Your task to perform on an android device: find photos in the google photos app Image 0: 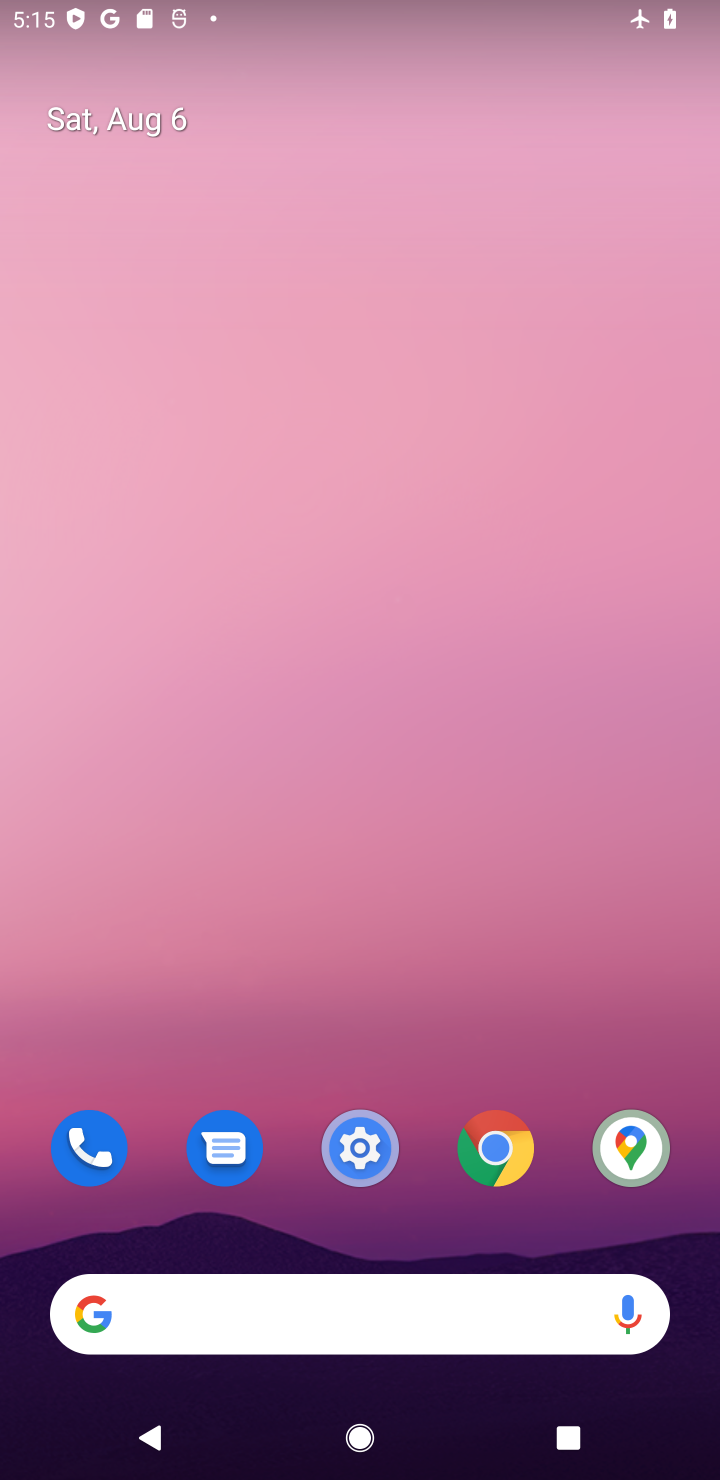
Step 0: drag from (374, 1228) to (646, 169)
Your task to perform on an android device: find photos in the google photos app Image 1: 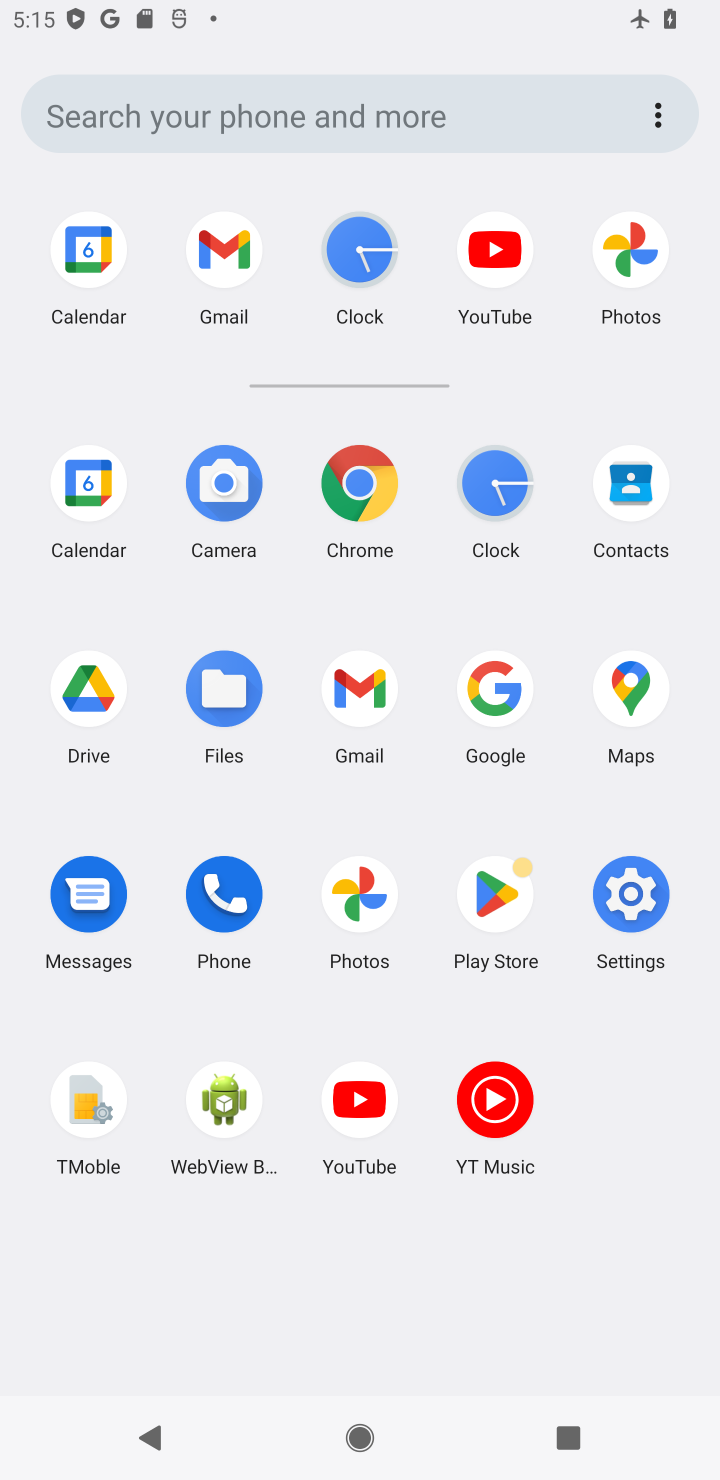
Step 1: click (374, 891)
Your task to perform on an android device: find photos in the google photos app Image 2: 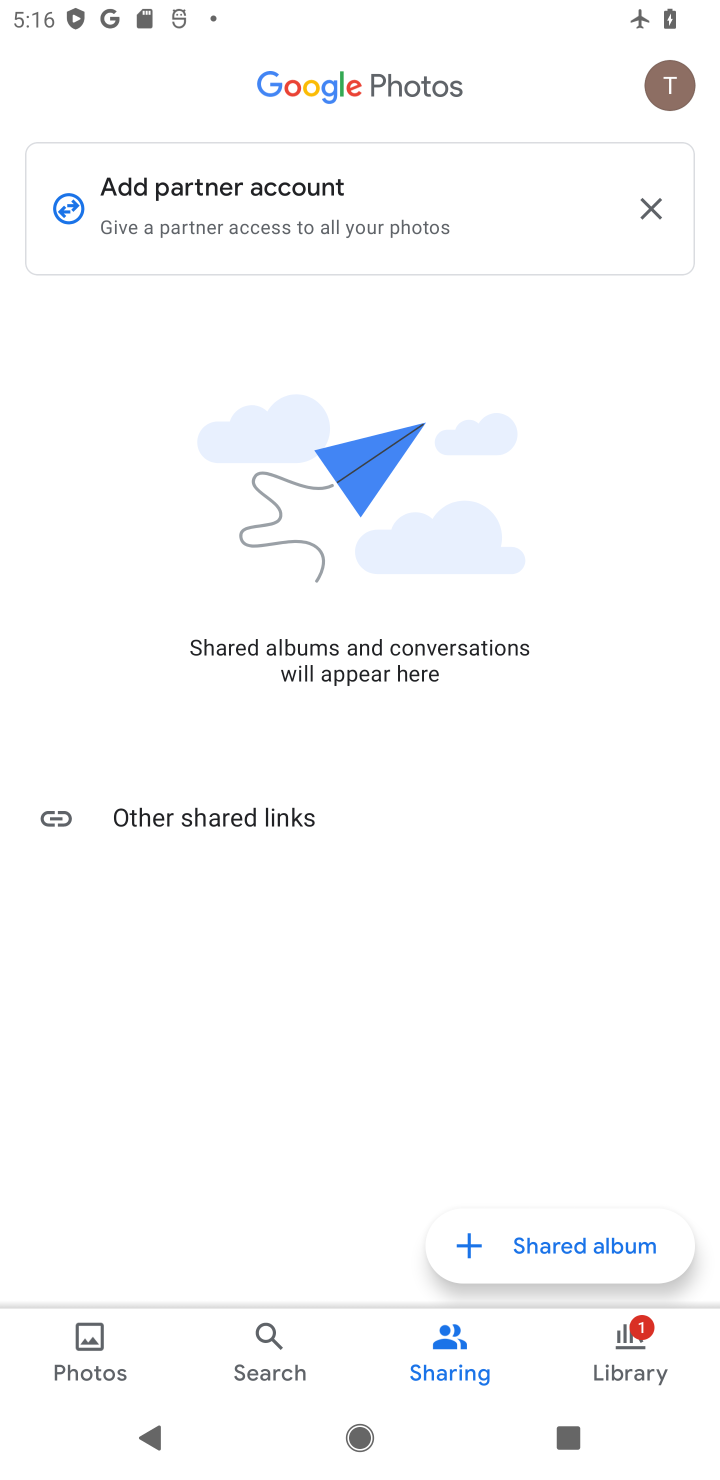
Step 2: click (654, 201)
Your task to perform on an android device: find photos in the google photos app Image 3: 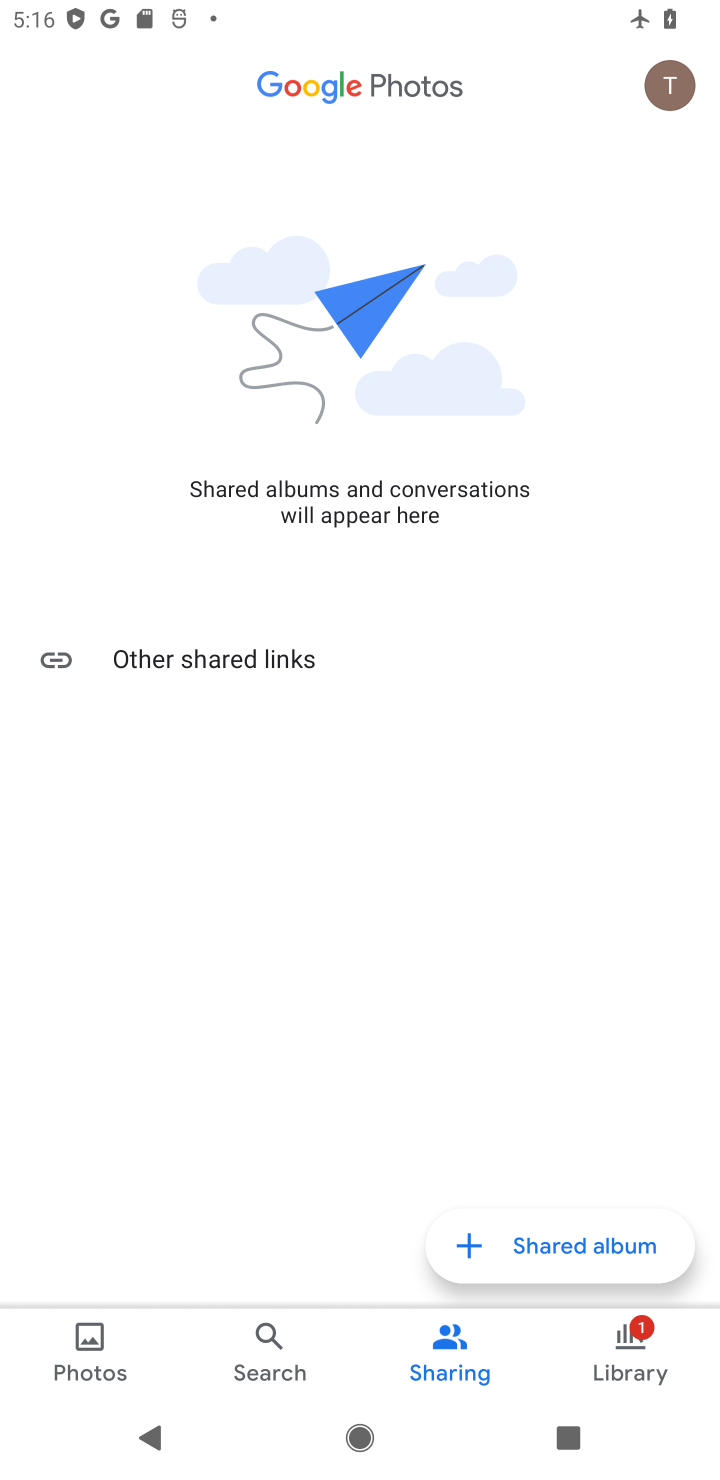
Step 3: click (99, 1335)
Your task to perform on an android device: find photos in the google photos app Image 4: 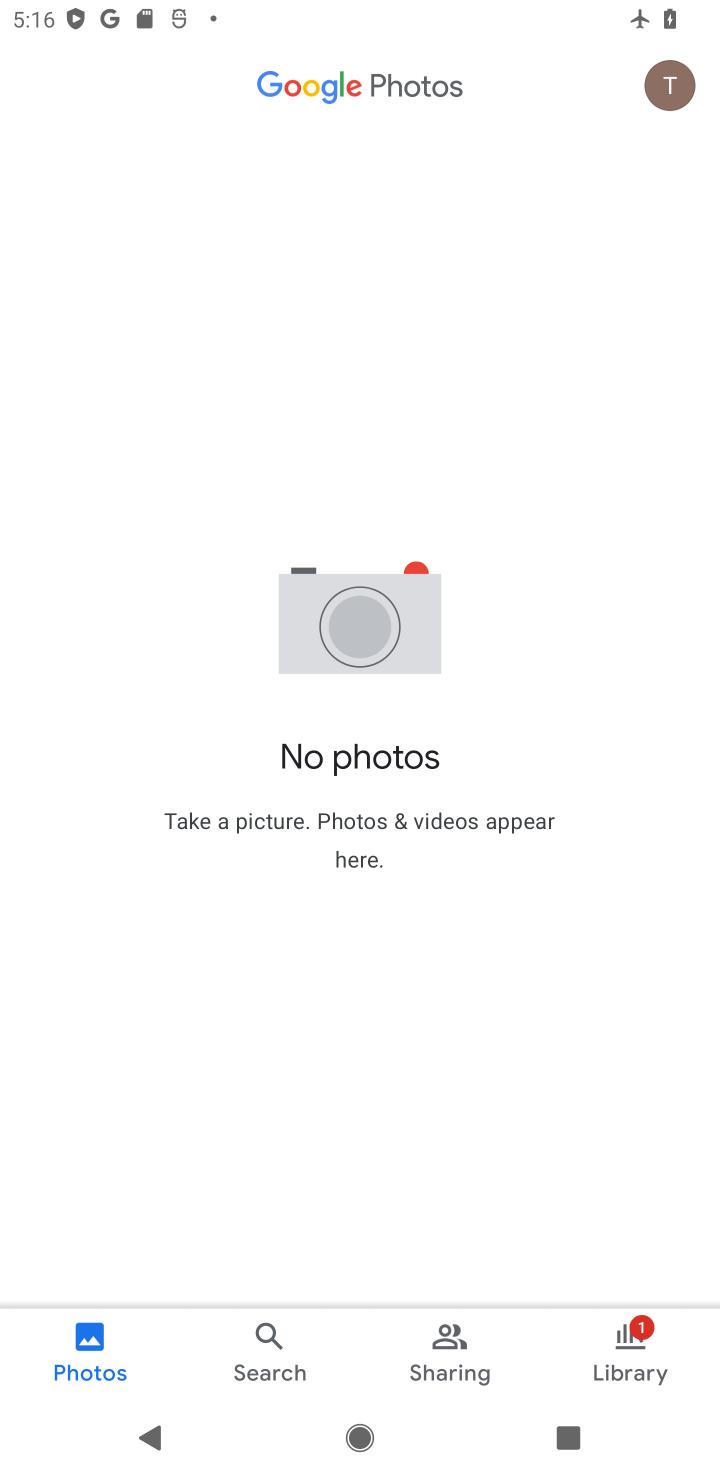
Step 4: task complete